Your task to perform on an android device: Open battery settings Image 0: 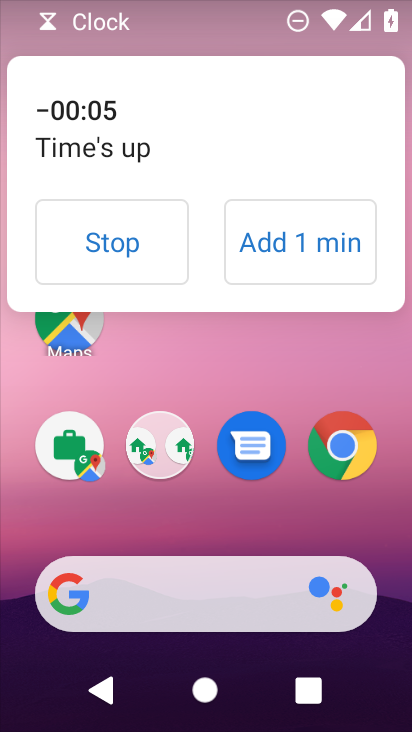
Step 0: click (117, 252)
Your task to perform on an android device: Open battery settings Image 1: 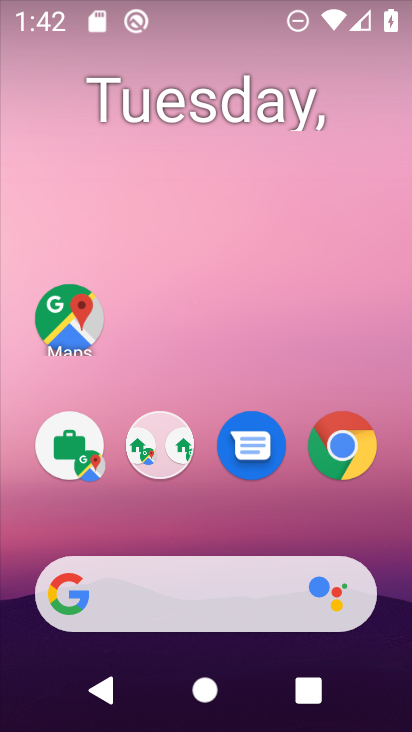
Step 1: drag from (223, 525) to (240, 233)
Your task to perform on an android device: Open battery settings Image 2: 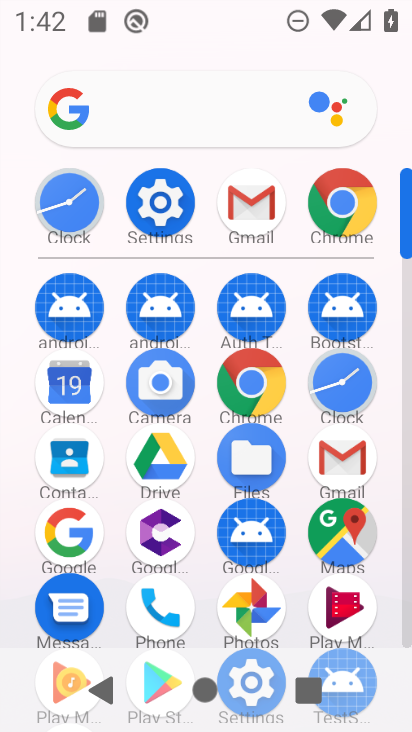
Step 2: click (175, 206)
Your task to perform on an android device: Open battery settings Image 3: 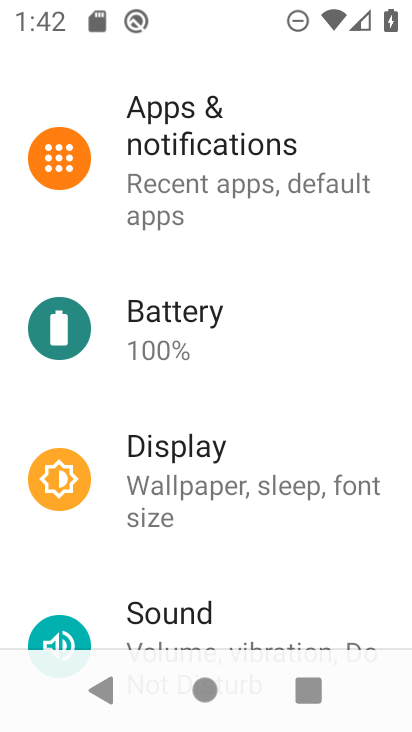
Step 3: click (187, 346)
Your task to perform on an android device: Open battery settings Image 4: 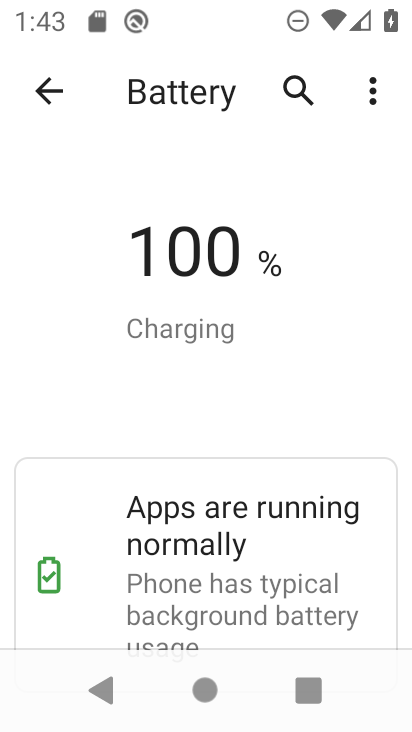
Step 4: task complete